Your task to perform on an android device: turn off data saver in the chrome app Image 0: 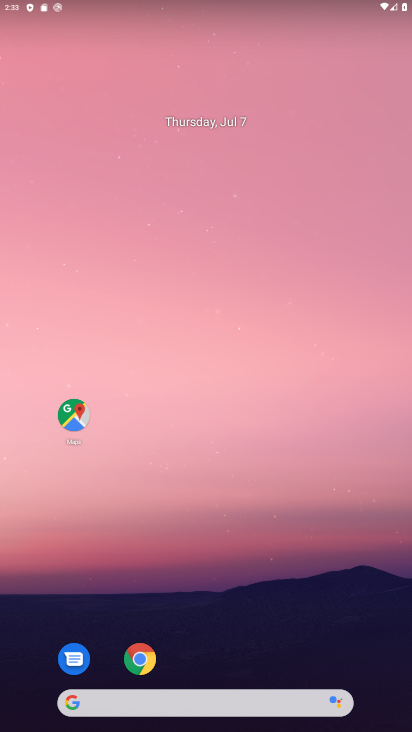
Step 0: drag from (303, 629) to (101, 63)
Your task to perform on an android device: turn off data saver in the chrome app Image 1: 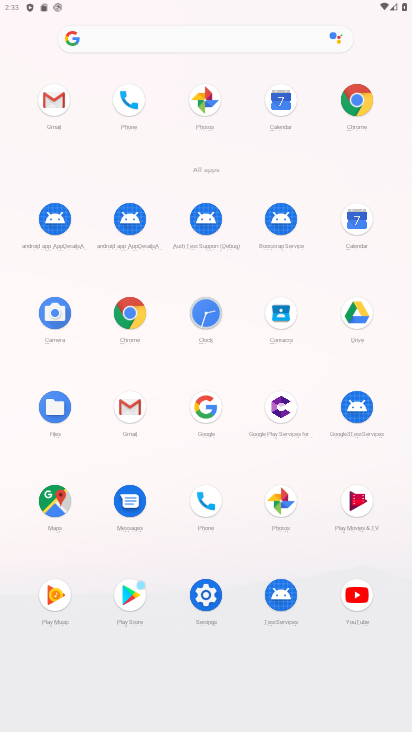
Step 1: click (353, 114)
Your task to perform on an android device: turn off data saver in the chrome app Image 2: 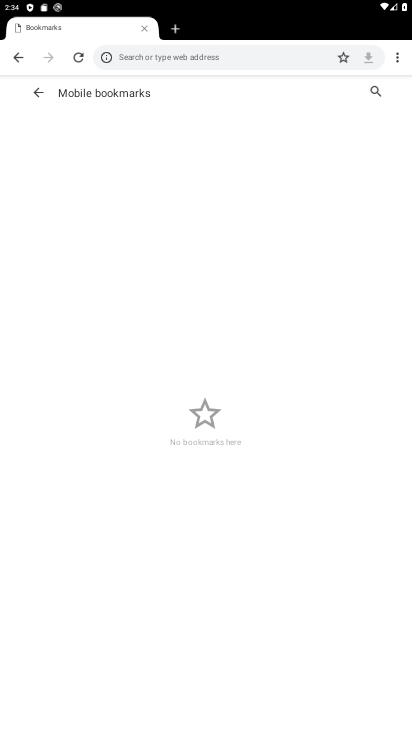
Step 2: click (402, 54)
Your task to perform on an android device: turn off data saver in the chrome app Image 3: 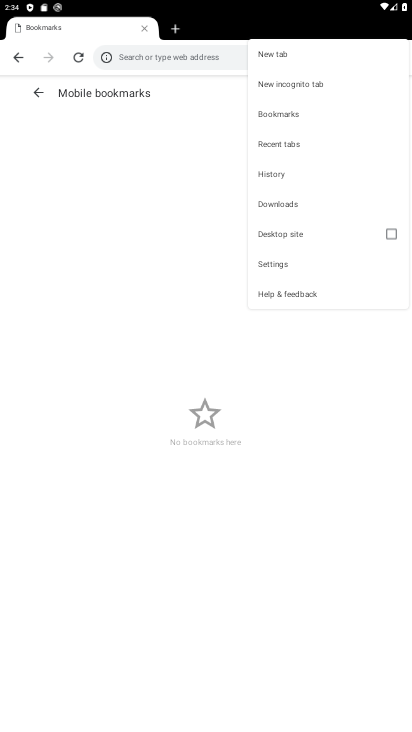
Step 3: click (308, 265)
Your task to perform on an android device: turn off data saver in the chrome app Image 4: 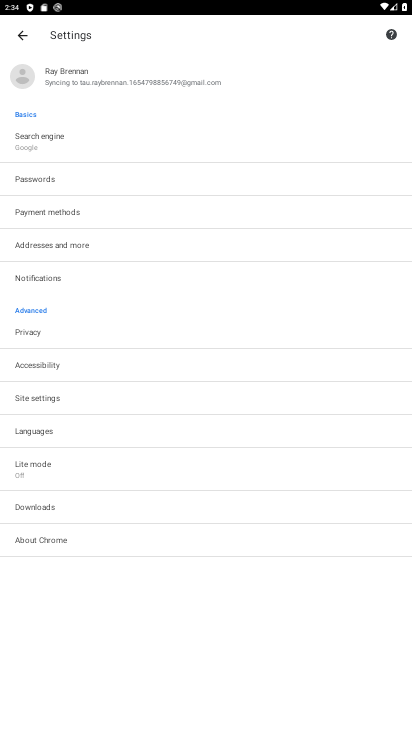
Step 4: click (133, 467)
Your task to perform on an android device: turn off data saver in the chrome app Image 5: 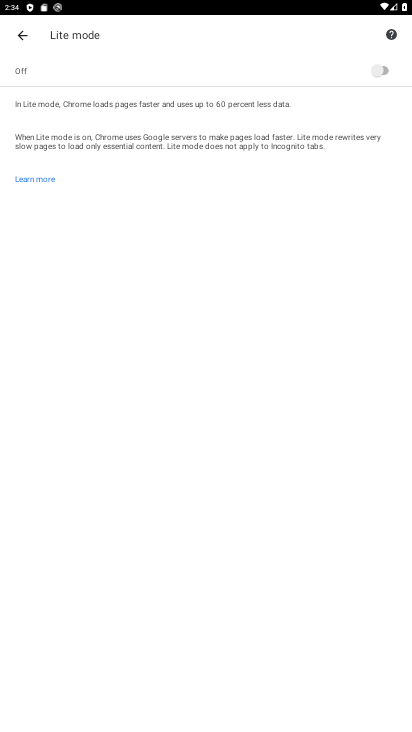
Step 5: task complete